Your task to perform on an android device: find snoozed emails in the gmail app Image 0: 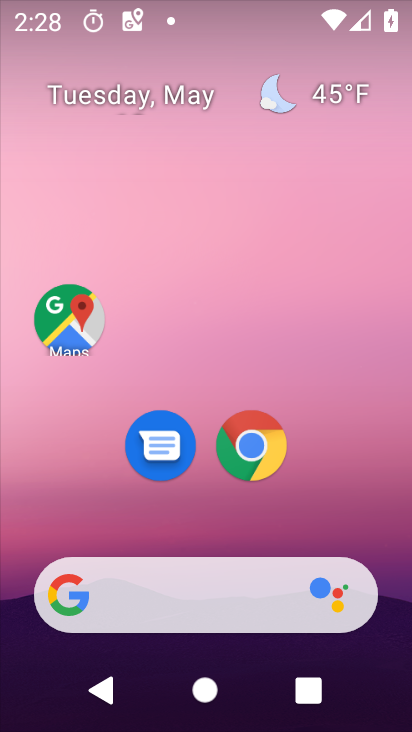
Step 0: drag from (229, 479) to (268, 86)
Your task to perform on an android device: find snoozed emails in the gmail app Image 1: 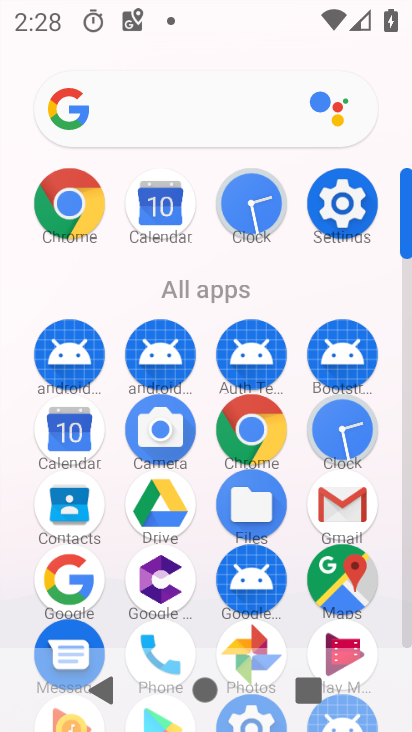
Step 1: click (346, 502)
Your task to perform on an android device: find snoozed emails in the gmail app Image 2: 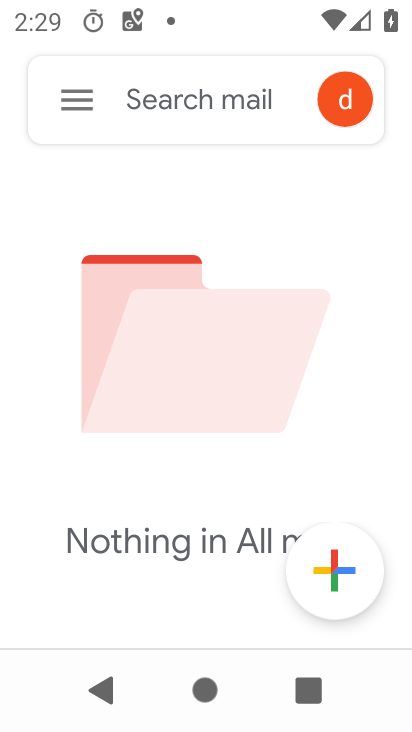
Step 2: click (74, 108)
Your task to perform on an android device: find snoozed emails in the gmail app Image 3: 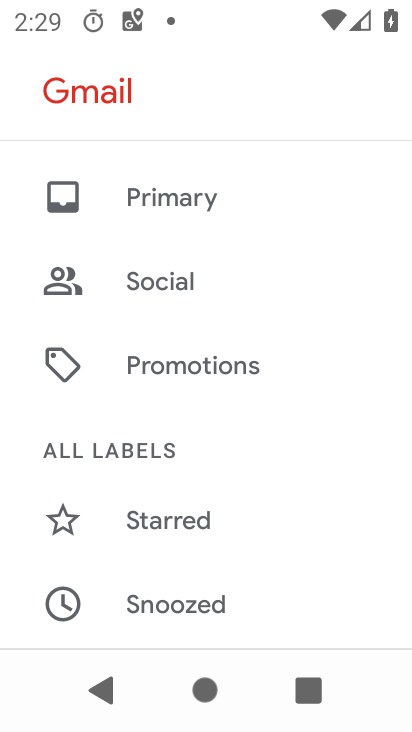
Step 3: drag from (238, 584) to (312, 85)
Your task to perform on an android device: find snoozed emails in the gmail app Image 4: 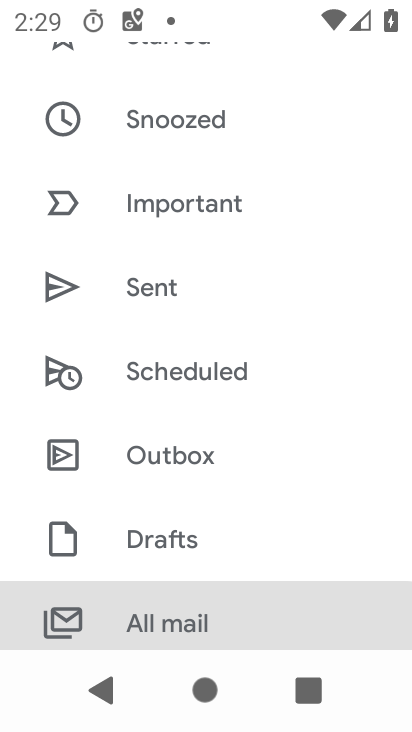
Step 4: click (181, 117)
Your task to perform on an android device: find snoozed emails in the gmail app Image 5: 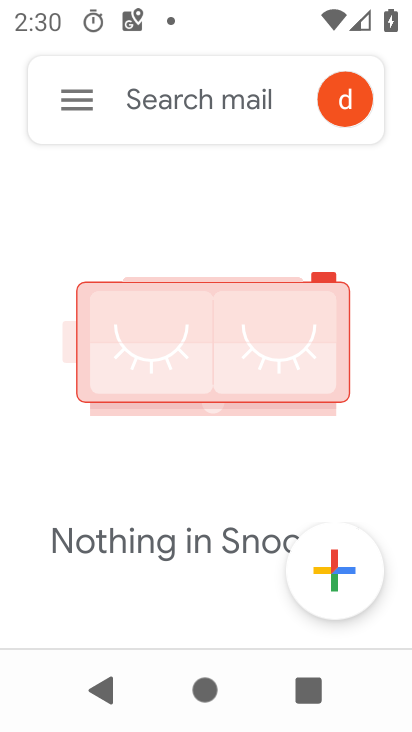
Step 5: task complete